Your task to perform on an android device: Open Wikipedia Image 0: 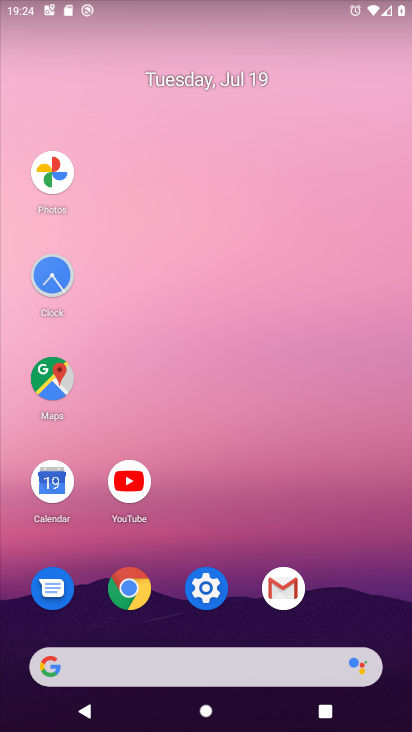
Step 0: click (130, 595)
Your task to perform on an android device: Open Wikipedia Image 1: 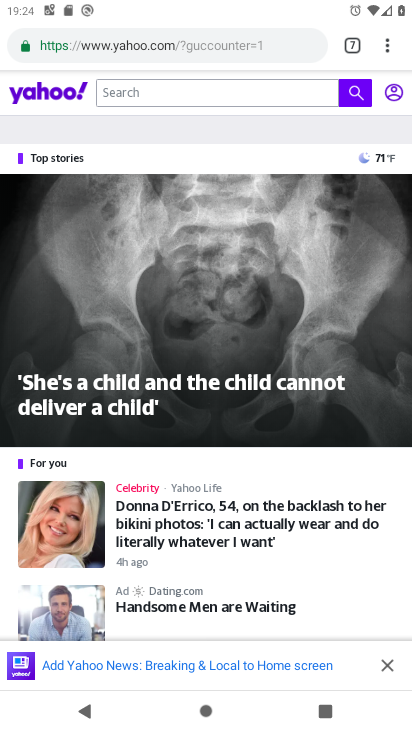
Step 1: click (386, 39)
Your task to perform on an android device: Open Wikipedia Image 2: 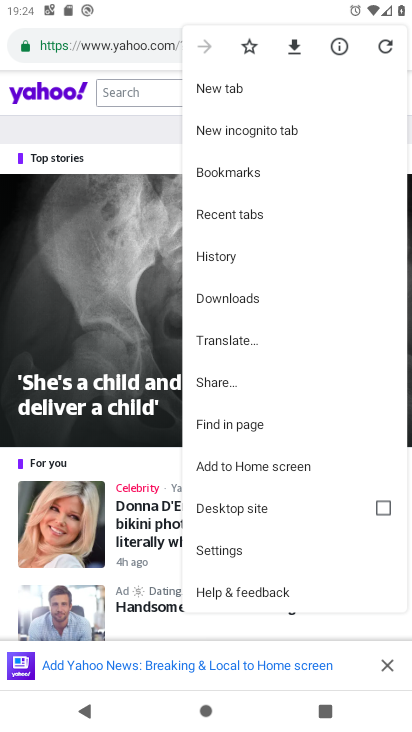
Step 2: click (232, 83)
Your task to perform on an android device: Open Wikipedia Image 3: 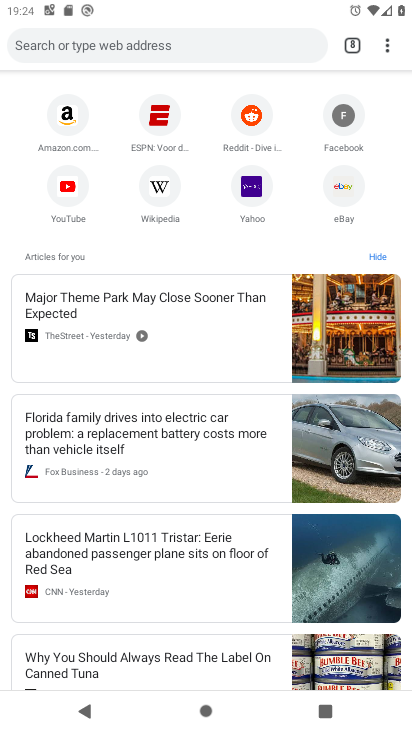
Step 3: click (157, 186)
Your task to perform on an android device: Open Wikipedia Image 4: 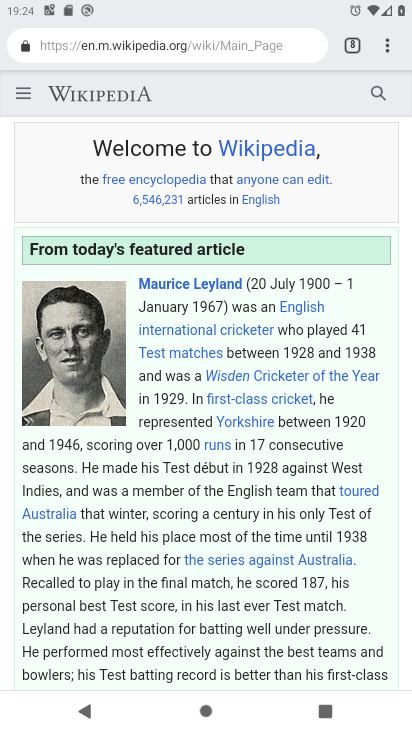
Step 4: task complete